Your task to perform on an android device: turn off location history Image 0: 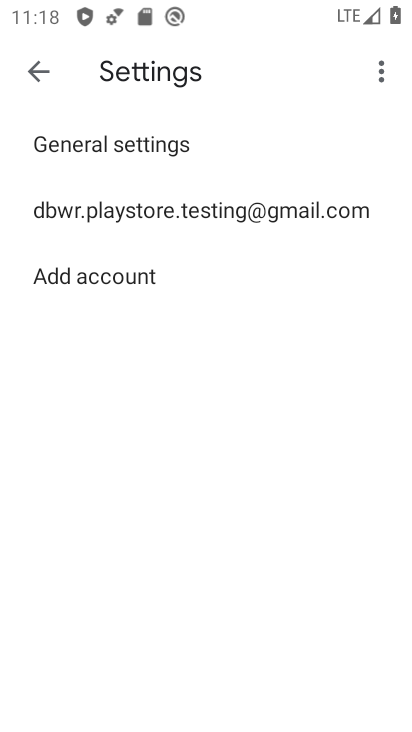
Step 0: press home button
Your task to perform on an android device: turn off location history Image 1: 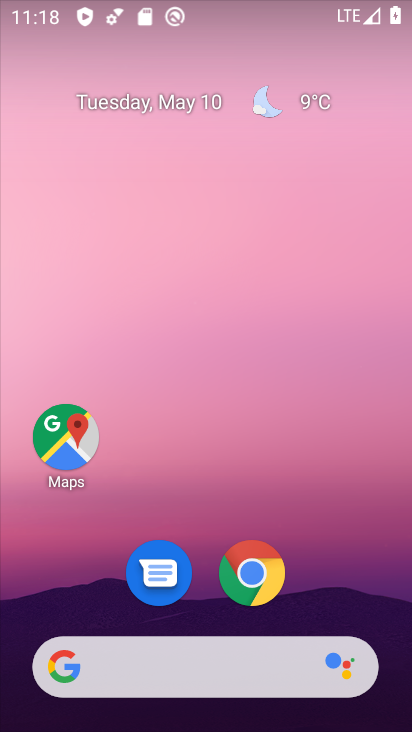
Step 1: drag from (189, 676) to (341, 73)
Your task to perform on an android device: turn off location history Image 2: 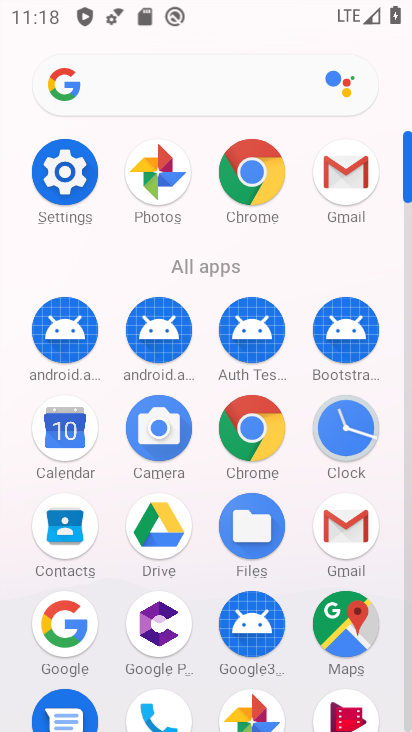
Step 2: click (58, 179)
Your task to perform on an android device: turn off location history Image 3: 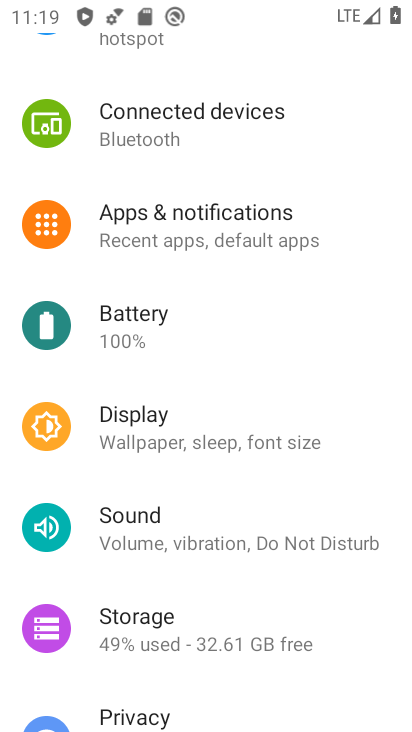
Step 3: drag from (207, 488) to (358, 135)
Your task to perform on an android device: turn off location history Image 4: 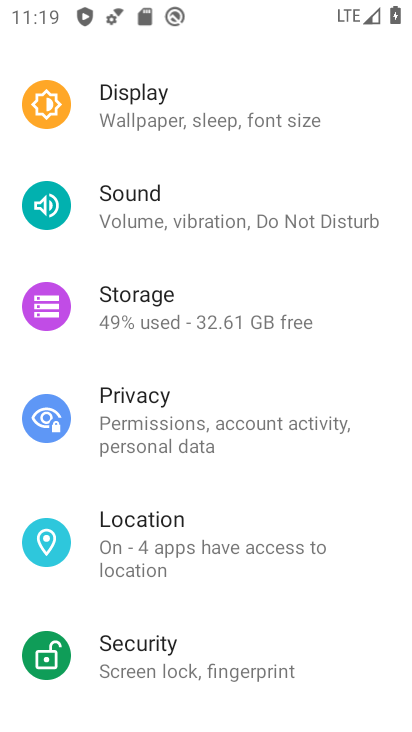
Step 4: click (176, 527)
Your task to perform on an android device: turn off location history Image 5: 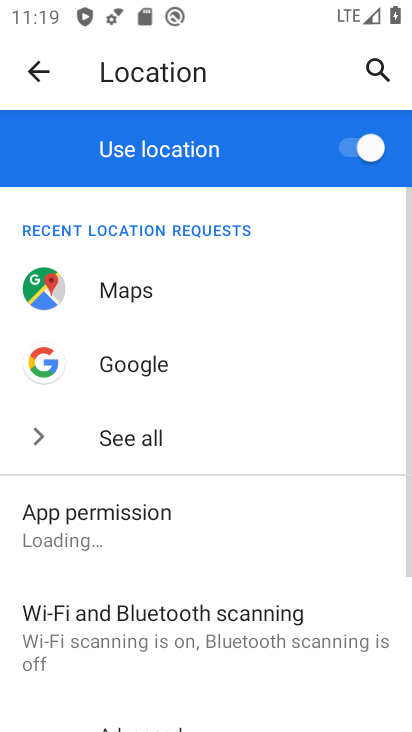
Step 5: drag from (192, 545) to (312, 245)
Your task to perform on an android device: turn off location history Image 6: 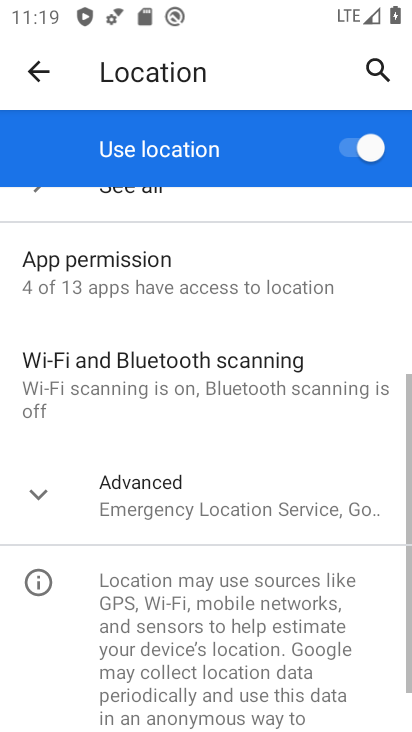
Step 6: click (106, 528)
Your task to perform on an android device: turn off location history Image 7: 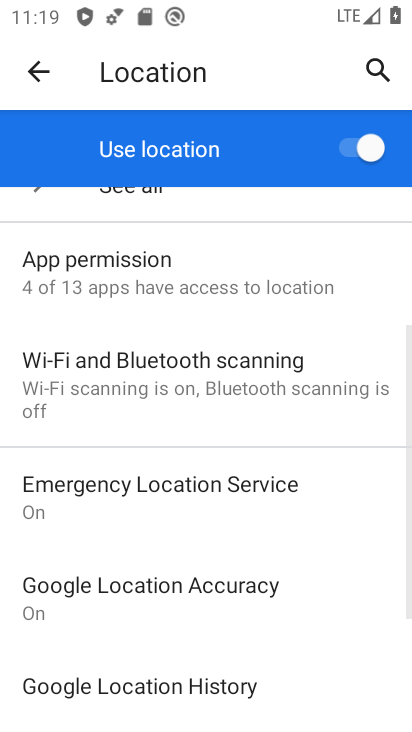
Step 7: drag from (196, 517) to (304, 329)
Your task to perform on an android device: turn off location history Image 8: 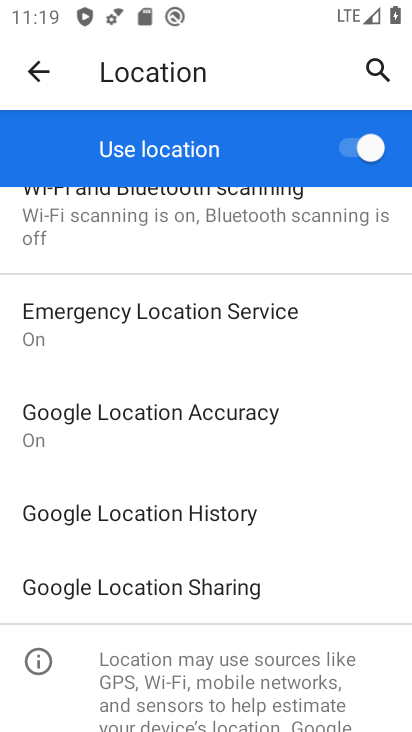
Step 8: click (161, 518)
Your task to perform on an android device: turn off location history Image 9: 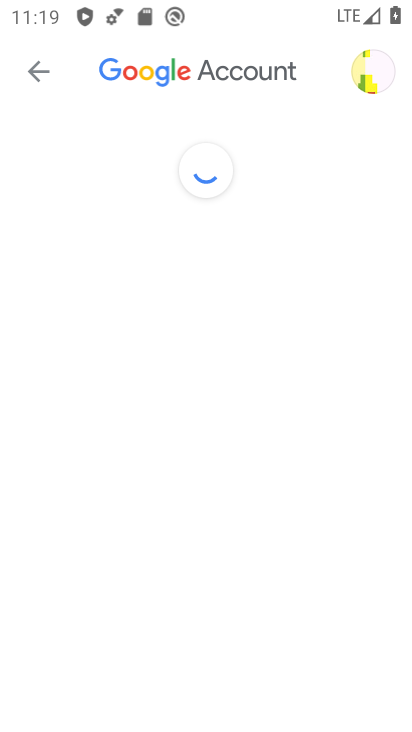
Step 9: drag from (131, 586) to (367, 126)
Your task to perform on an android device: turn off location history Image 10: 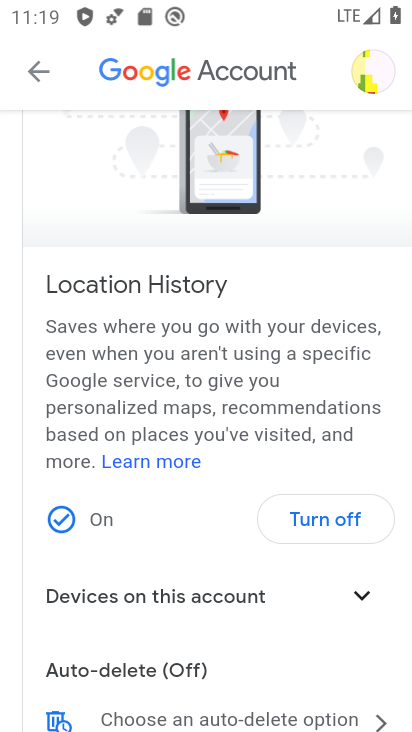
Step 10: click (299, 516)
Your task to perform on an android device: turn off location history Image 11: 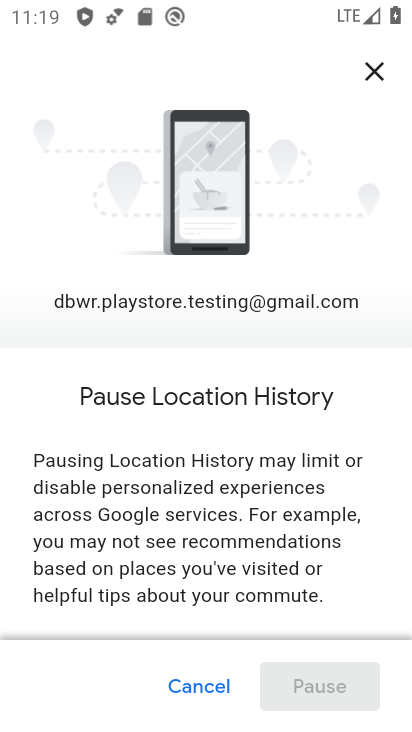
Step 11: drag from (240, 580) to (359, 196)
Your task to perform on an android device: turn off location history Image 12: 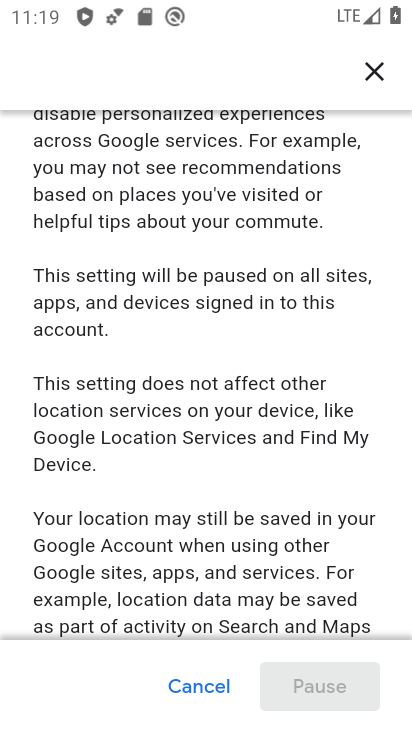
Step 12: drag from (210, 604) to (344, 180)
Your task to perform on an android device: turn off location history Image 13: 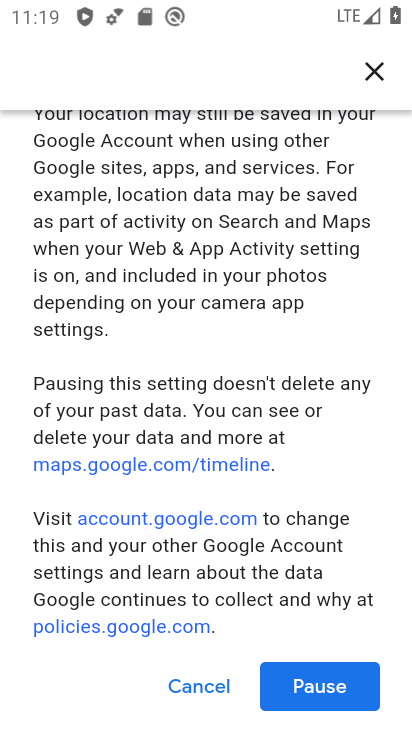
Step 13: click (323, 688)
Your task to perform on an android device: turn off location history Image 14: 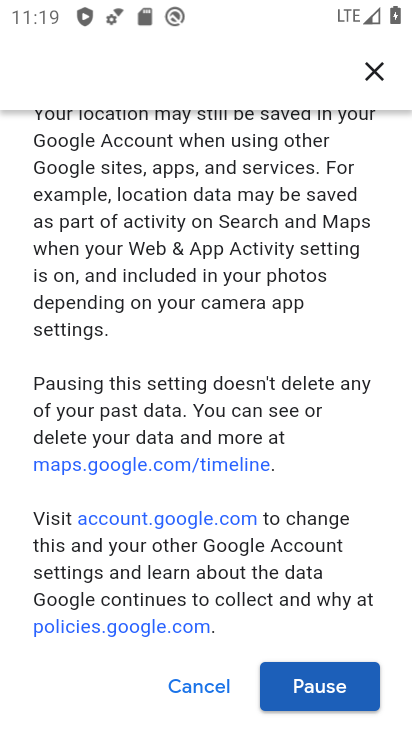
Step 14: click (323, 689)
Your task to perform on an android device: turn off location history Image 15: 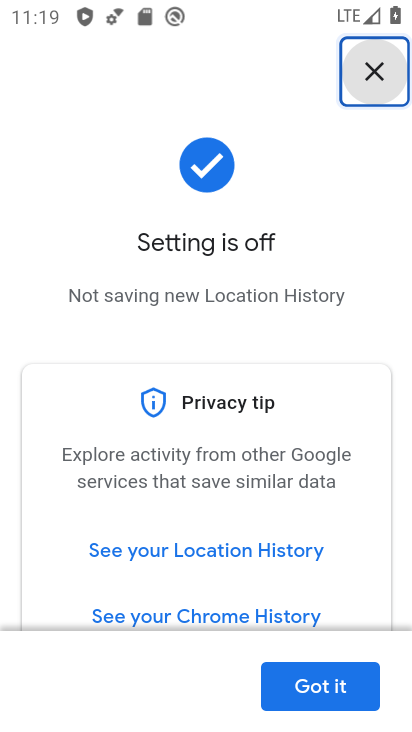
Step 15: click (310, 689)
Your task to perform on an android device: turn off location history Image 16: 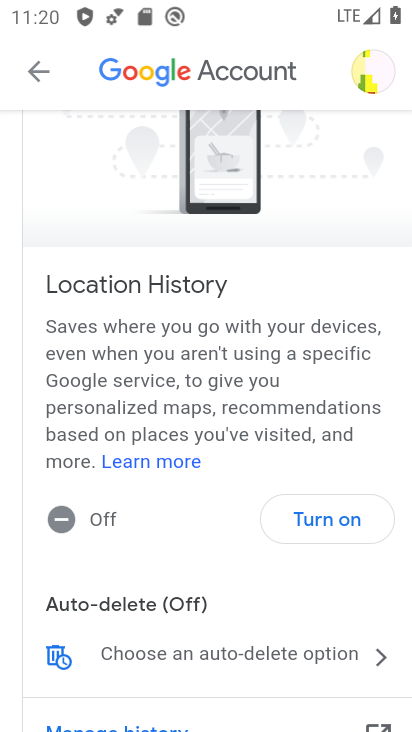
Step 16: task complete